Your task to perform on an android device: check out phone information Image 0: 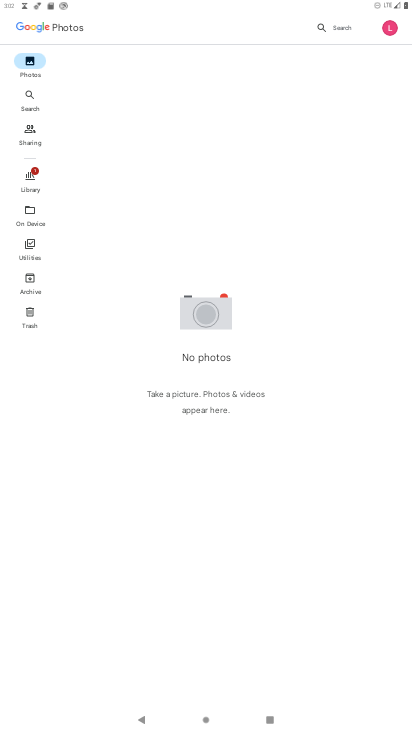
Step 0: press home button
Your task to perform on an android device: check out phone information Image 1: 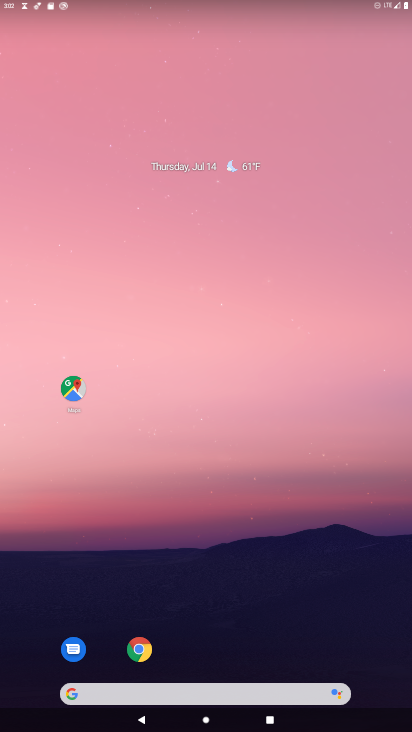
Step 1: drag from (312, 689) to (241, 87)
Your task to perform on an android device: check out phone information Image 2: 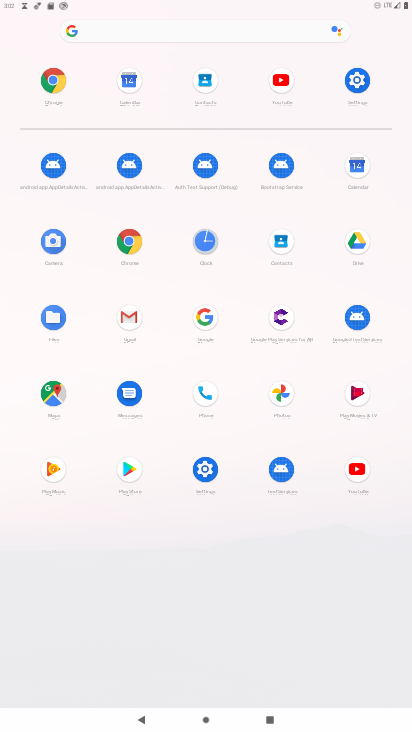
Step 2: click (362, 82)
Your task to perform on an android device: check out phone information Image 3: 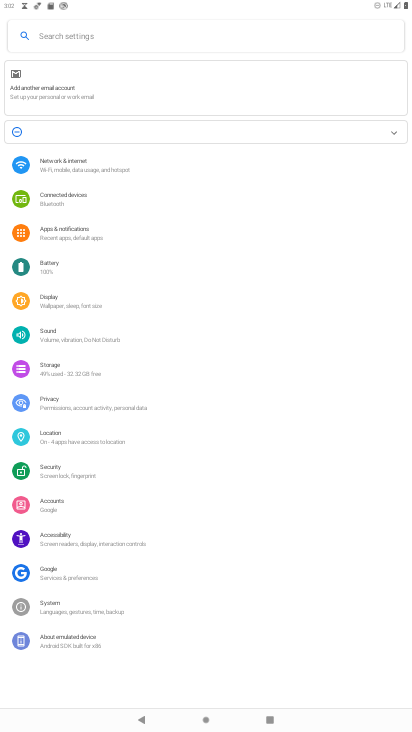
Step 3: click (101, 638)
Your task to perform on an android device: check out phone information Image 4: 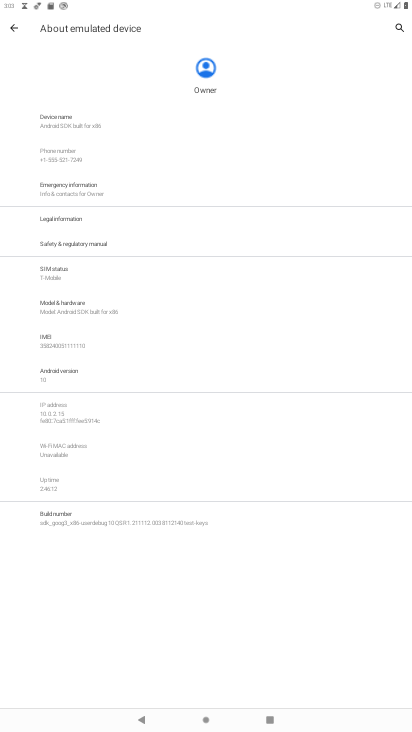
Step 4: task complete